Your task to perform on an android device: toggle airplane mode Image 0: 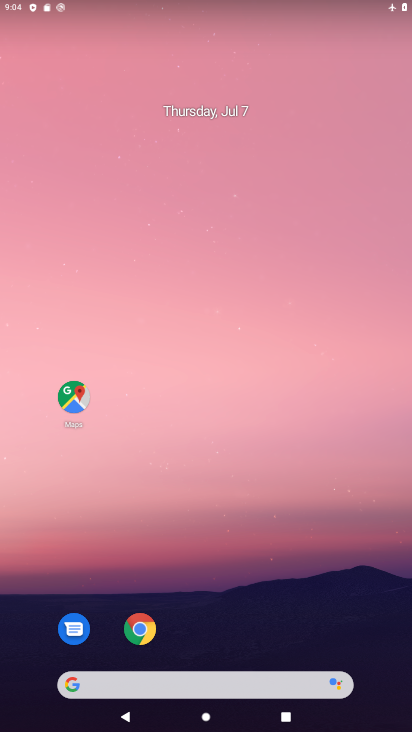
Step 0: drag from (264, 535) to (246, 155)
Your task to perform on an android device: toggle airplane mode Image 1: 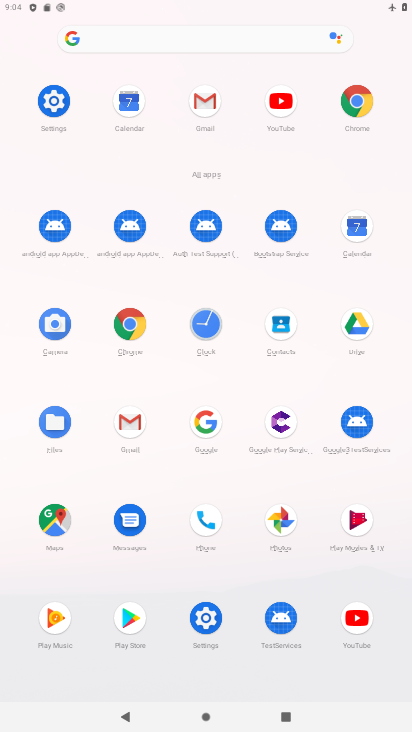
Step 1: click (49, 102)
Your task to perform on an android device: toggle airplane mode Image 2: 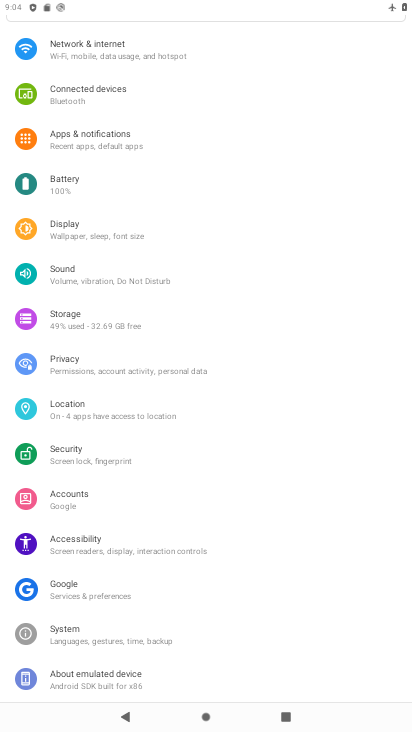
Step 2: click (87, 48)
Your task to perform on an android device: toggle airplane mode Image 3: 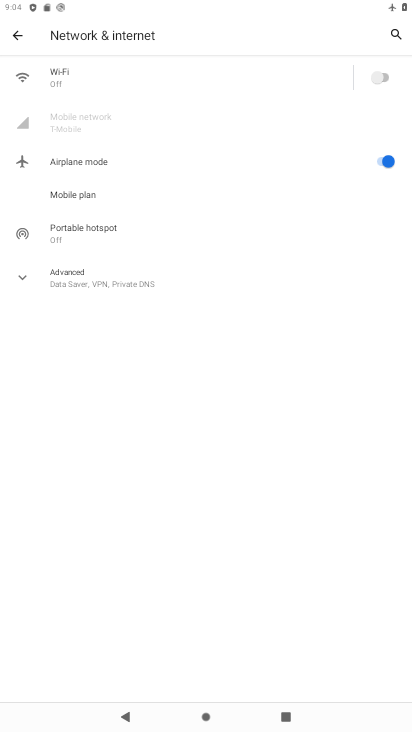
Step 3: click (385, 158)
Your task to perform on an android device: toggle airplane mode Image 4: 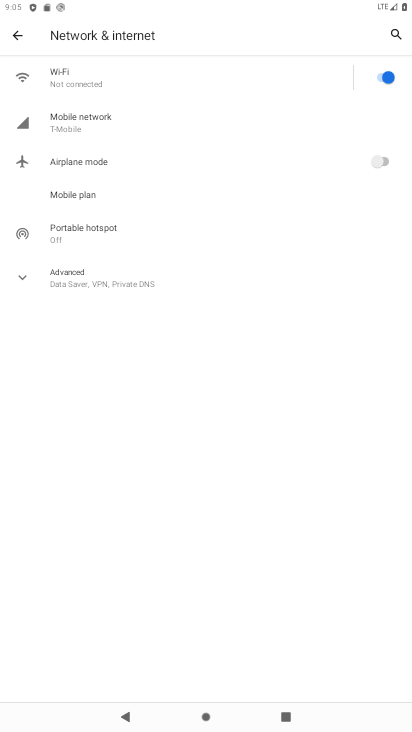
Step 4: task complete